Your task to perform on an android device: Go to calendar. Show me events next week Image 0: 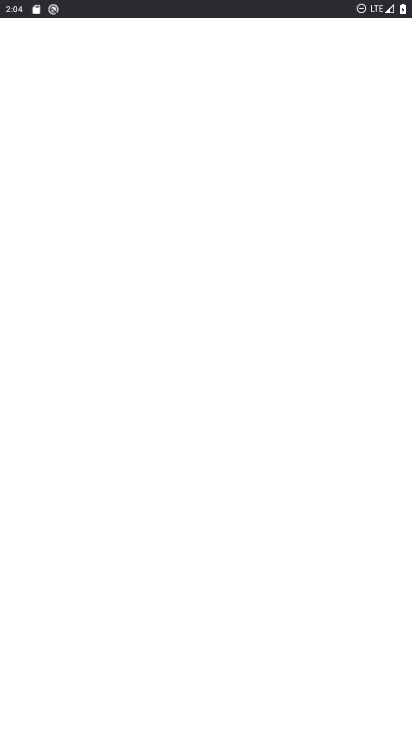
Step 0: press home button
Your task to perform on an android device: Go to calendar. Show me events next week Image 1: 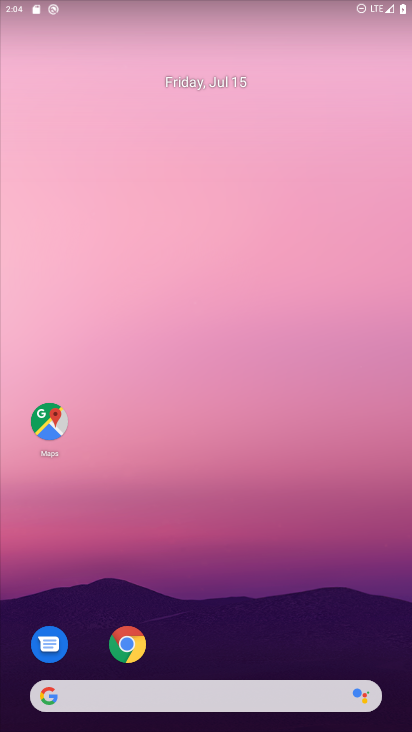
Step 1: drag from (6, 638) to (409, 44)
Your task to perform on an android device: Go to calendar. Show me events next week Image 2: 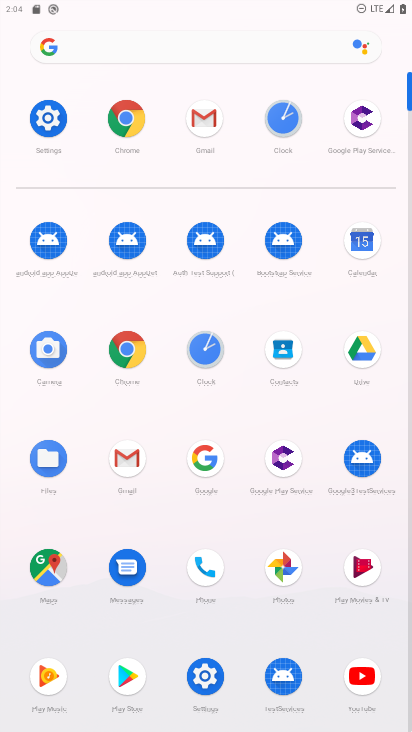
Step 2: click (378, 239)
Your task to perform on an android device: Go to calendar. Show me events next week Image 3: 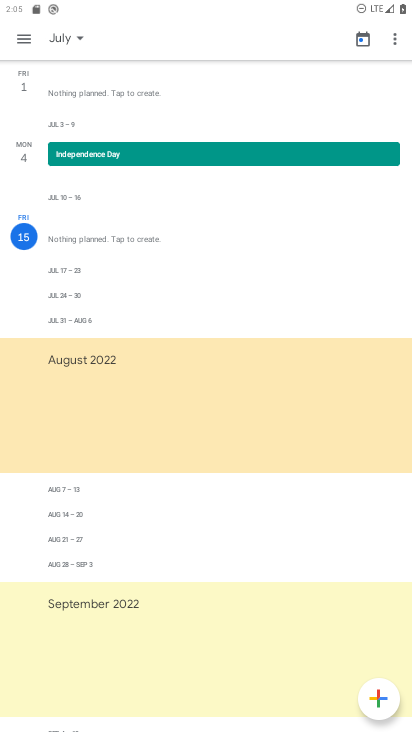
Step 3: click (51, 40)
Your task to perform on an android device: Go to calendar. Show me events next week Image 4: 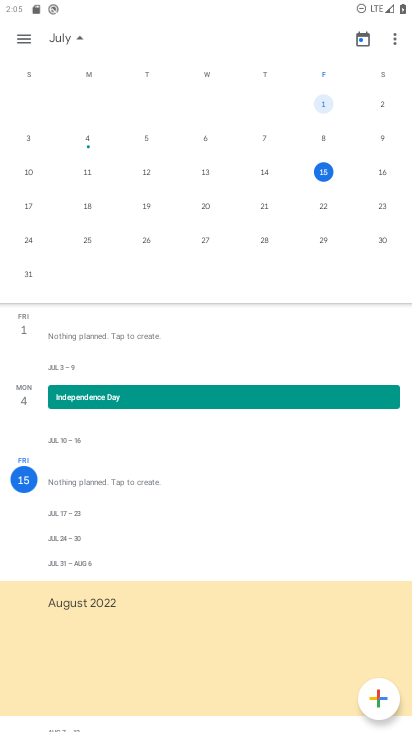
Step 4: click (97, 214)
Your task to perform on an android device: Go to calendar. Show me events next week Image 5: 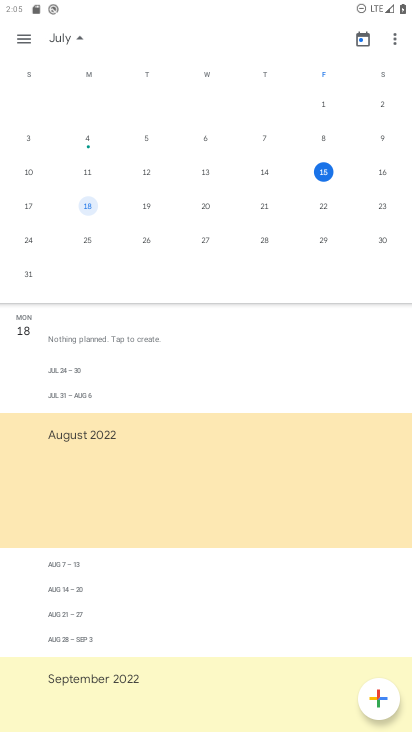
Step 5: task complete